Your task to perform on an android device: install app "Google Keep" Image 0: 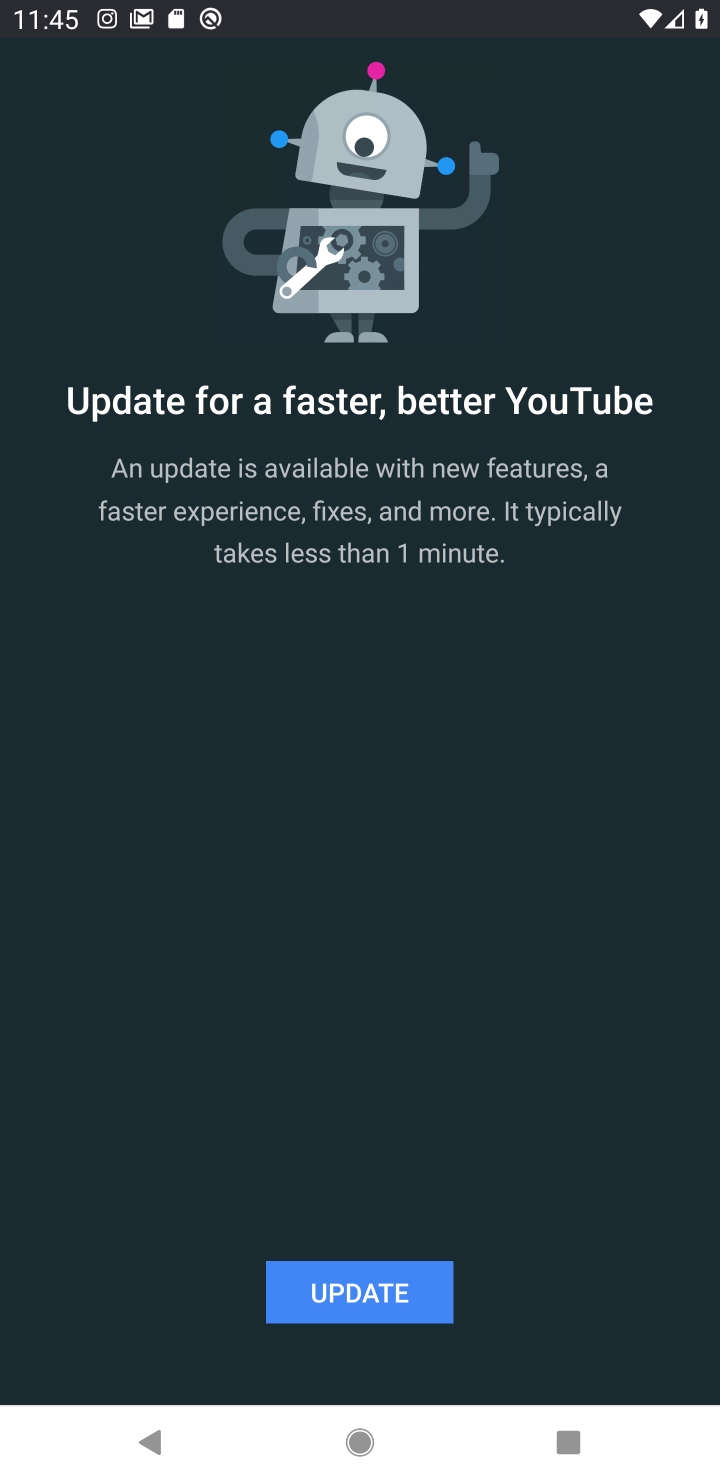
Step 0: press back button
Your task to perform on an android device: install app "Google Keep" Image 1: 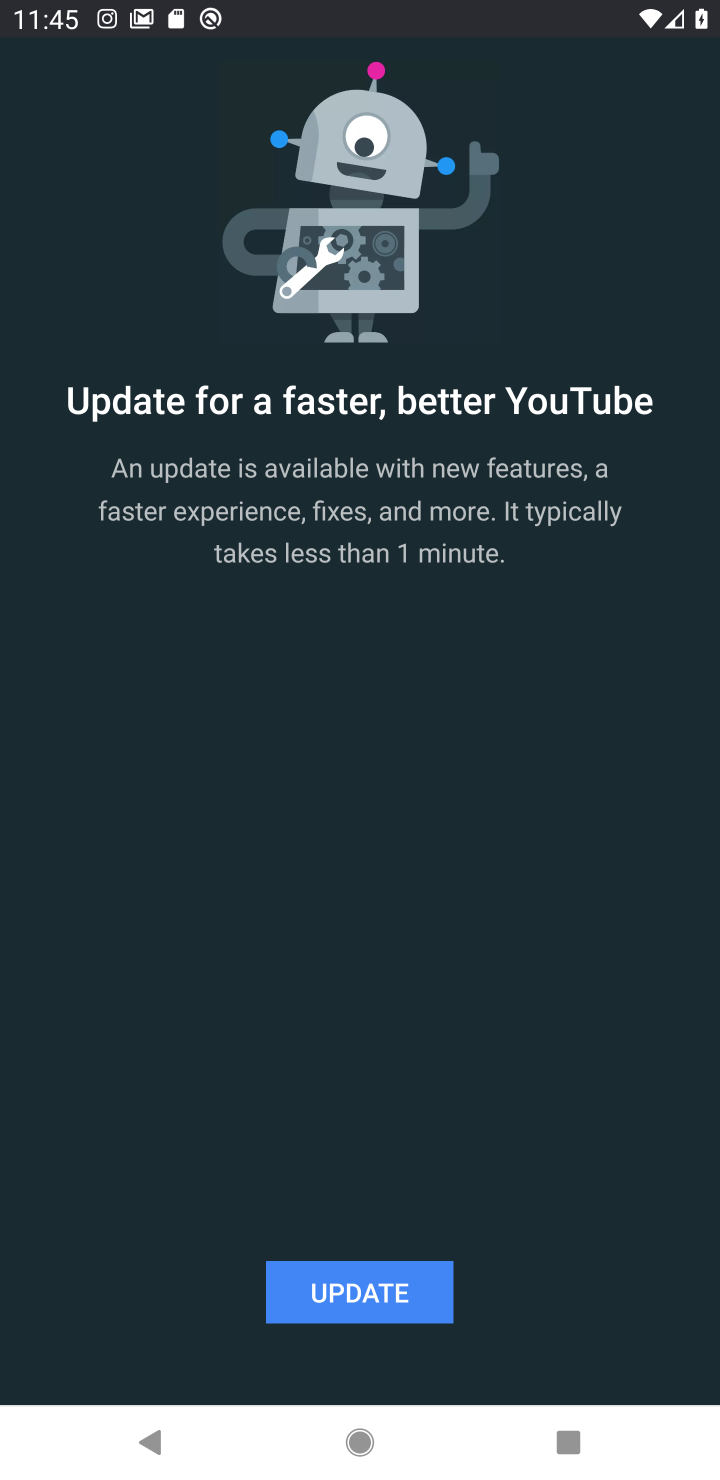
Step 1: press back button
Your task to perform on an android device: install app "Google Keep" Image 2: 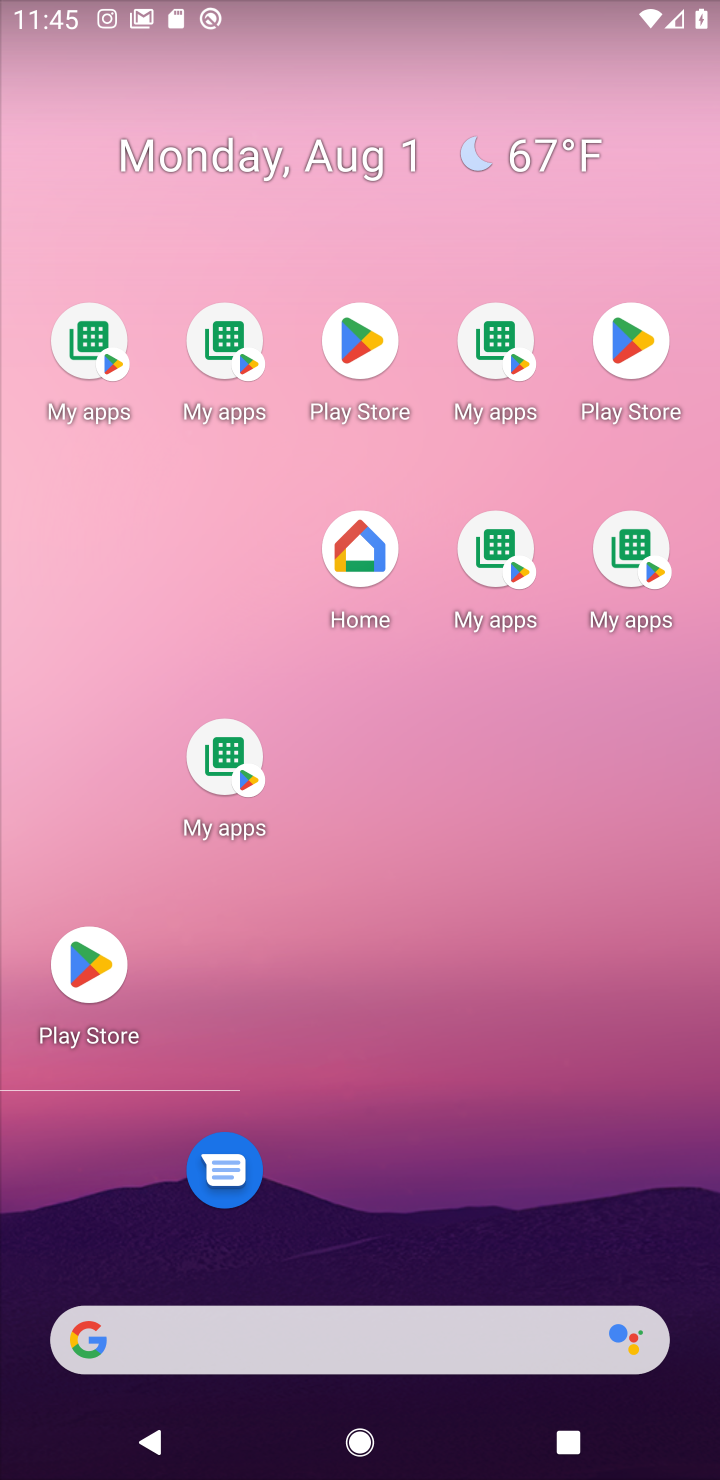
Step 2: click (208, 144)
Your task to perform on an android device: install app "Google Keep" Image 3: 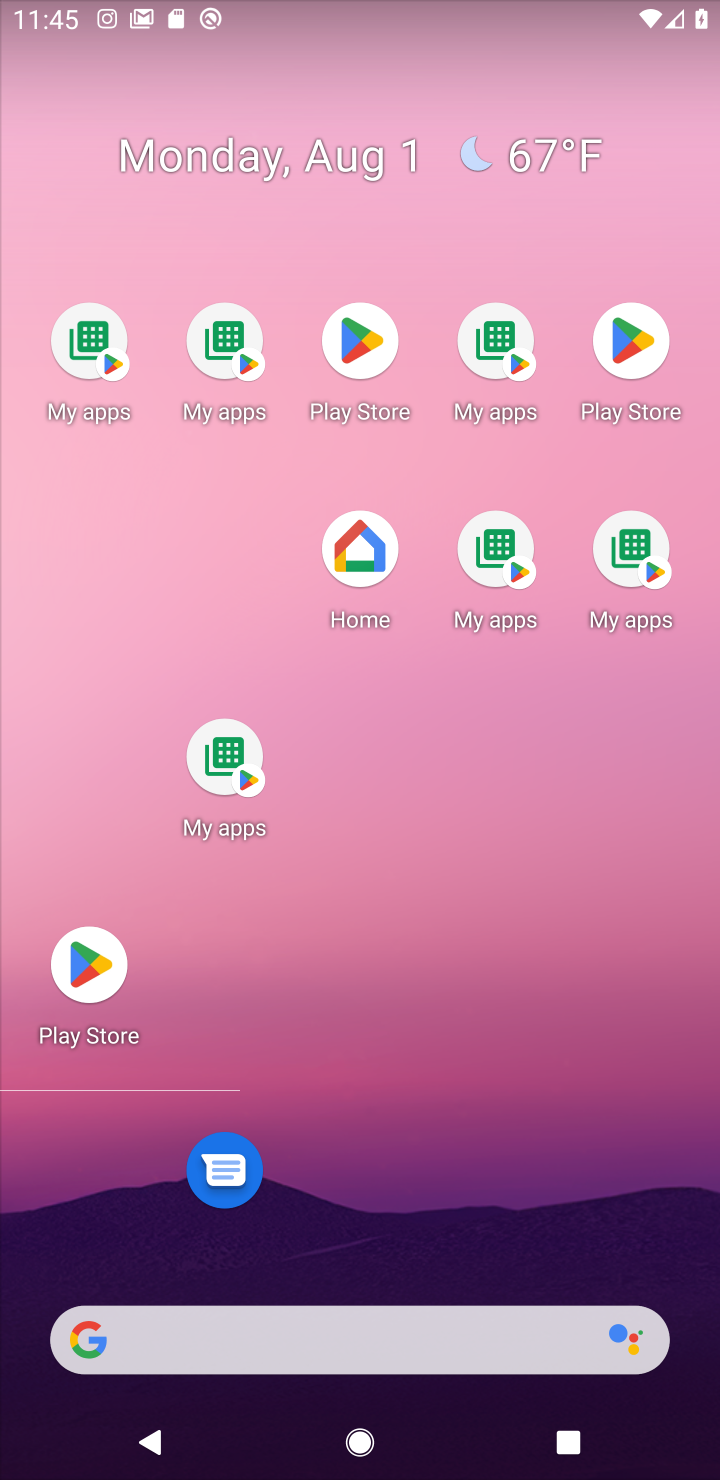
Step 3: drag from (296, 992) to (219, 399)
Your task to perform on an android device: install app "Google Keep" Image 4: 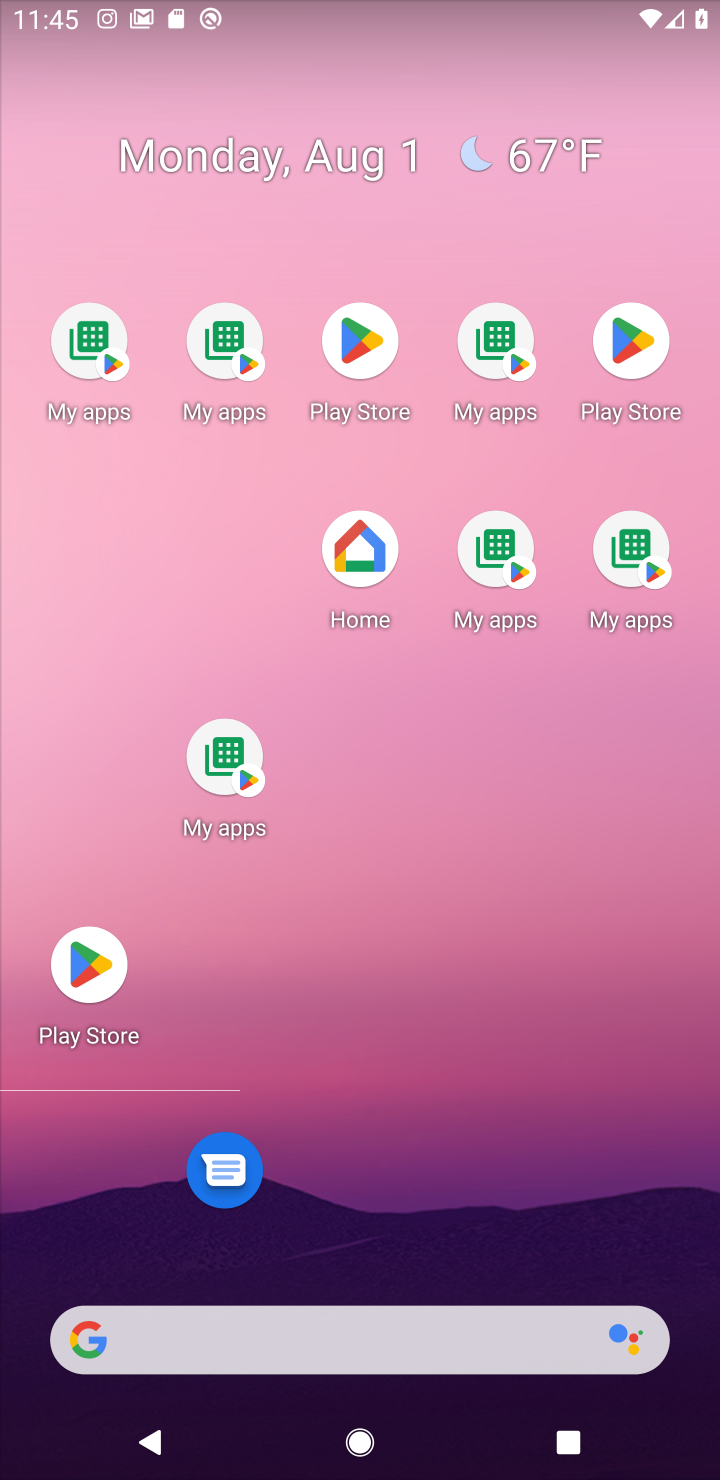
Step 4: drag from (327, 349) to (236, 160)
Your task to perform on an android device: install app "Google Keep" Image 5: 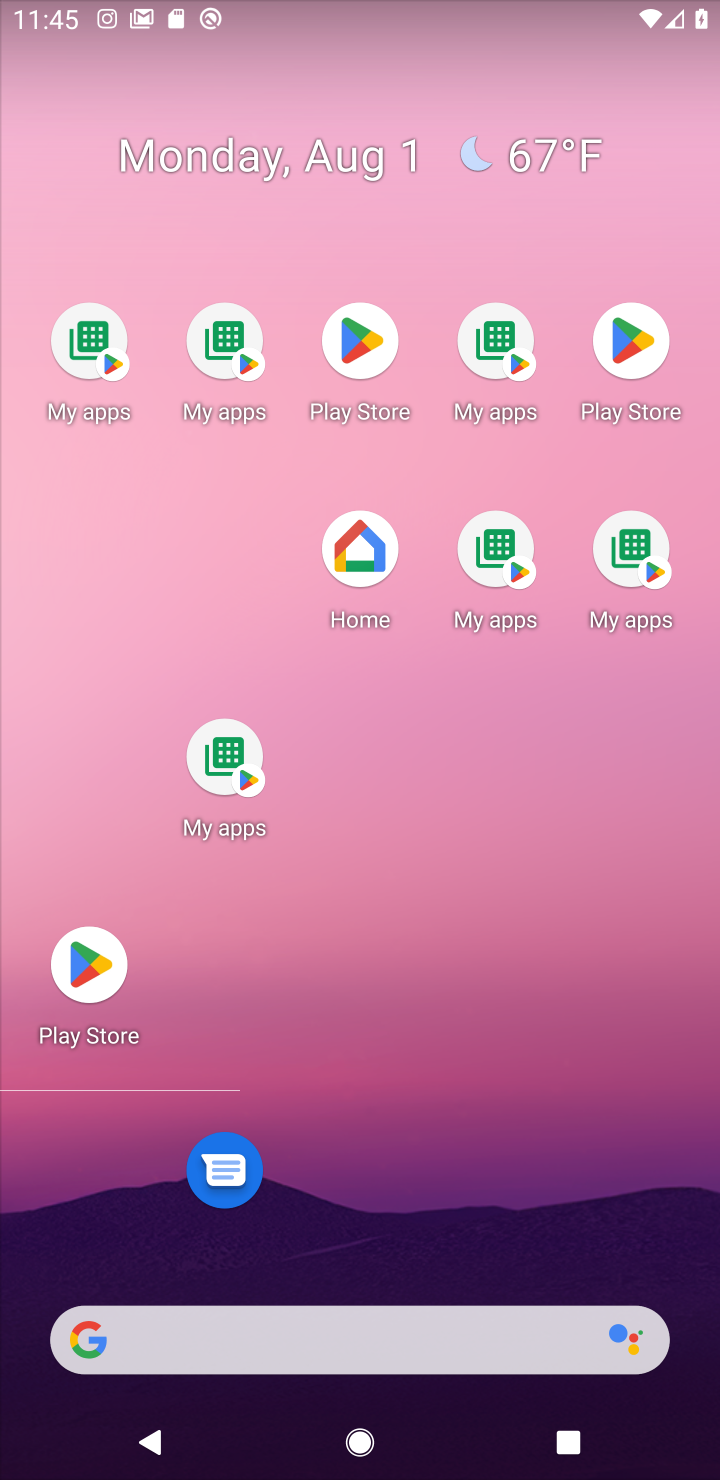
Step 5: click (492, 801)
Your task to perform on an android device: install app "Google Keep" Image 6: 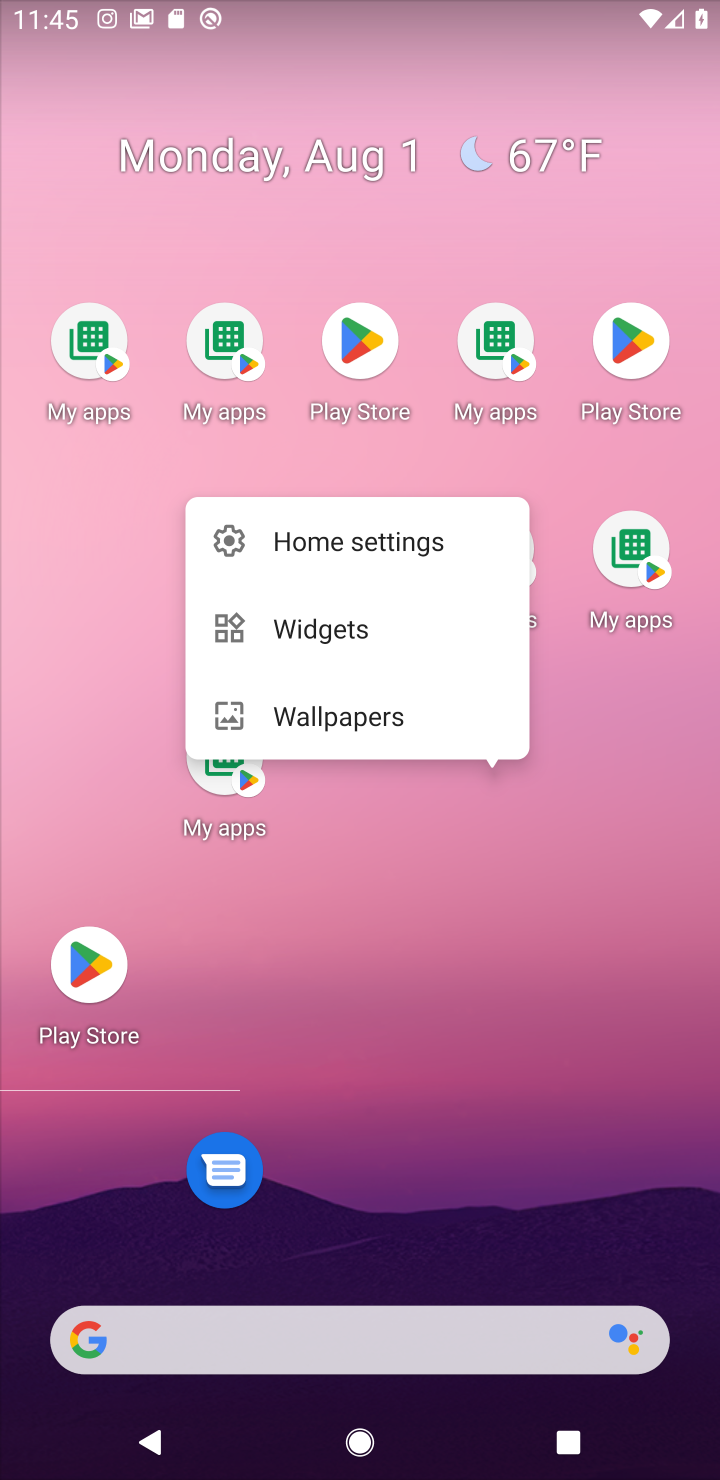
Step 6: click (626, 338)
Your task to perform on an android device: install app "Google Keep" Image 7: 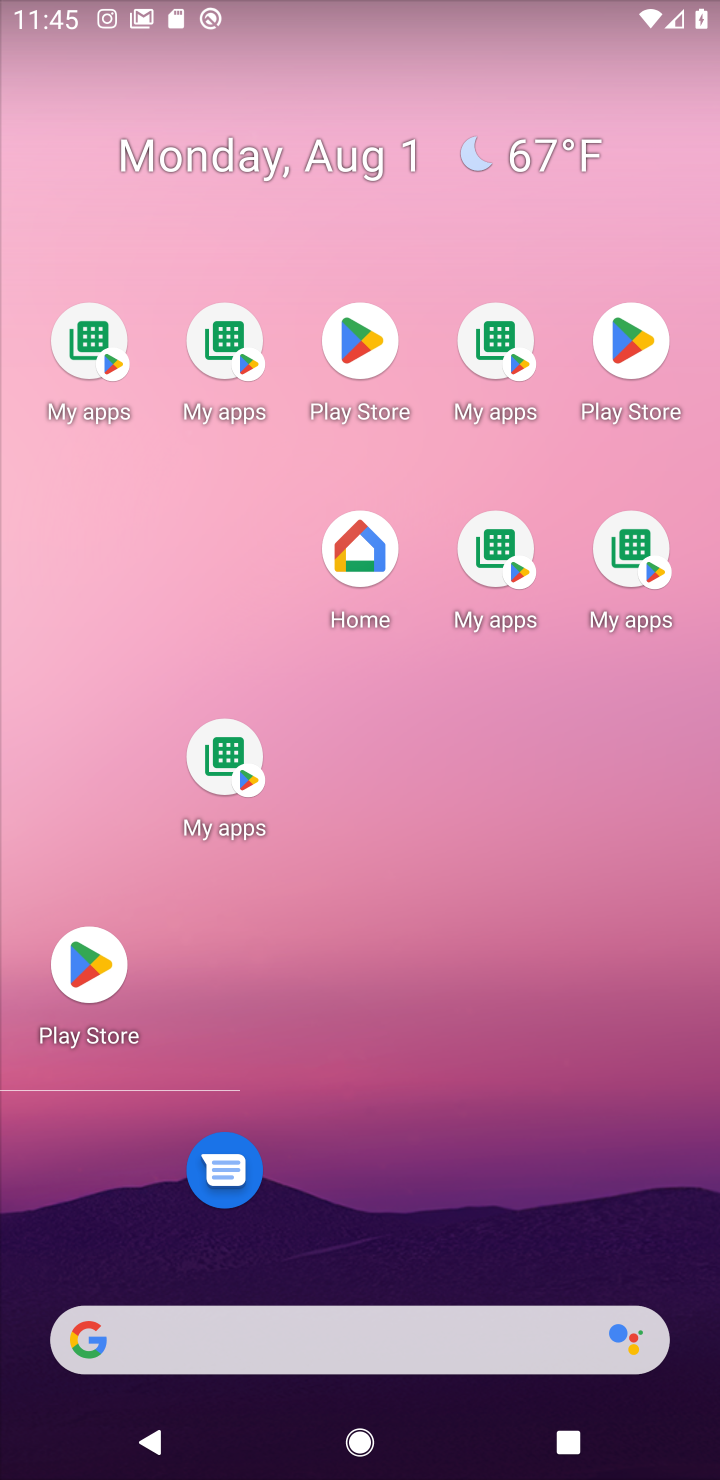
Step 7: click (631, 350)
Your task to perform on an android device: install app "Google Keep" Image 8: 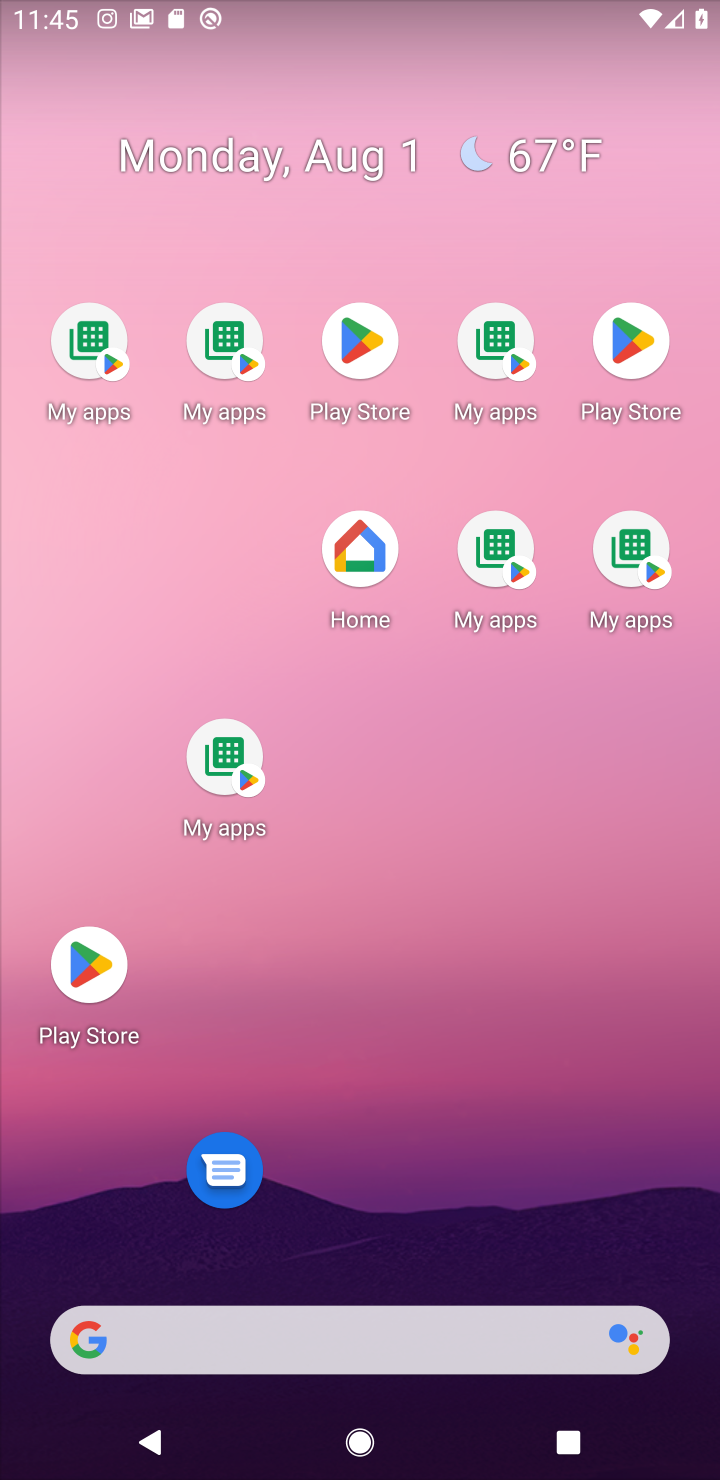
Step 8: click (631, 336)
Your task to perform on an android device: install app "Google Keep" Image 9: 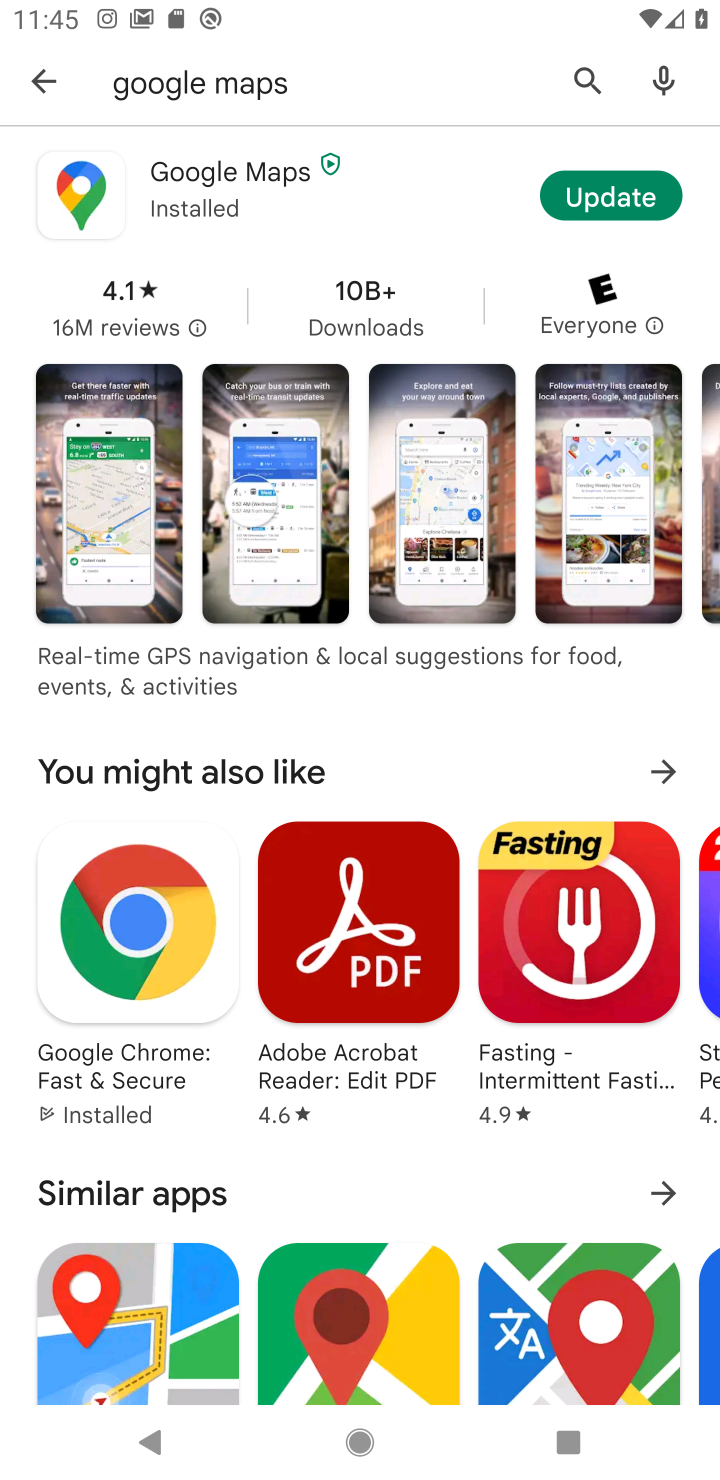
Step 9: click (631, 336)
Your task to perform on an android device: install app "Google Keep" Image 10: 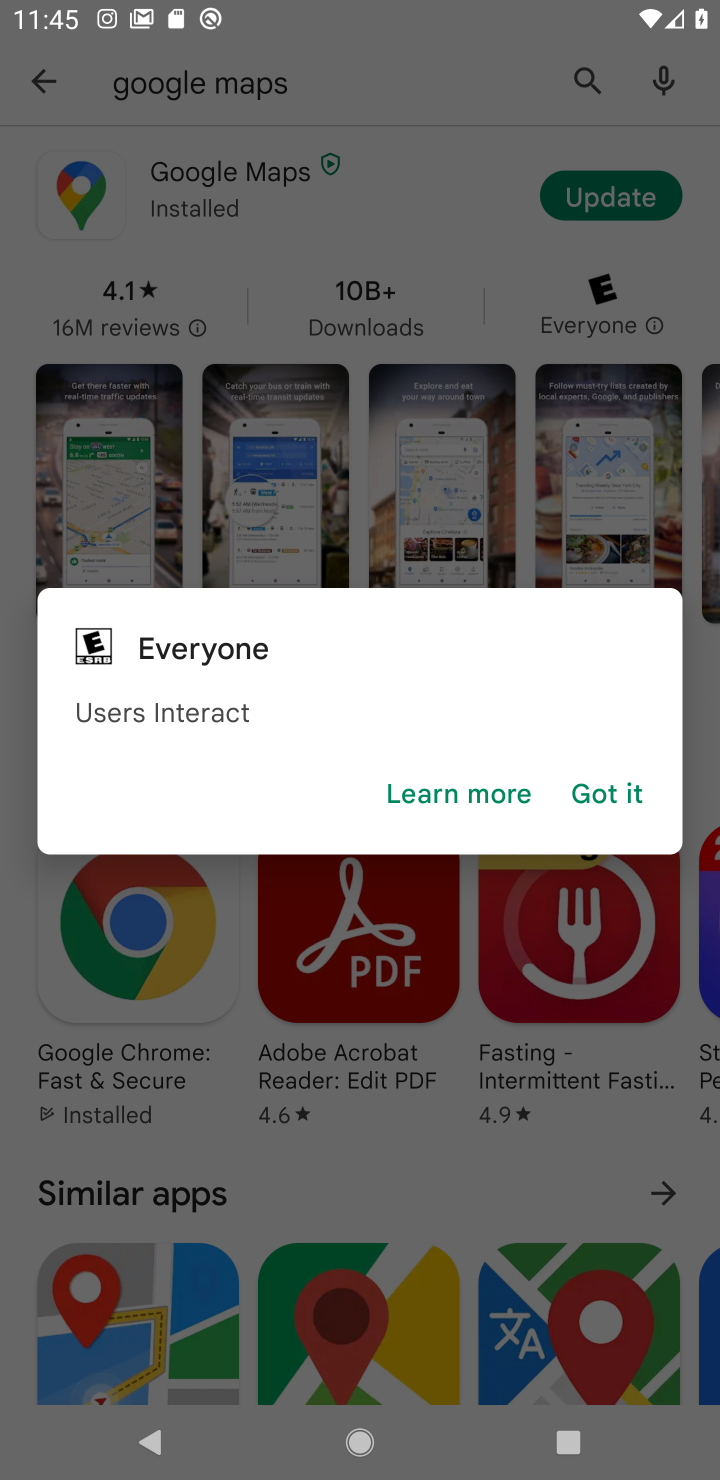
Step 10: click (666, 363)
Your task to perform on an android device: install app "Google Keep" Image 11: 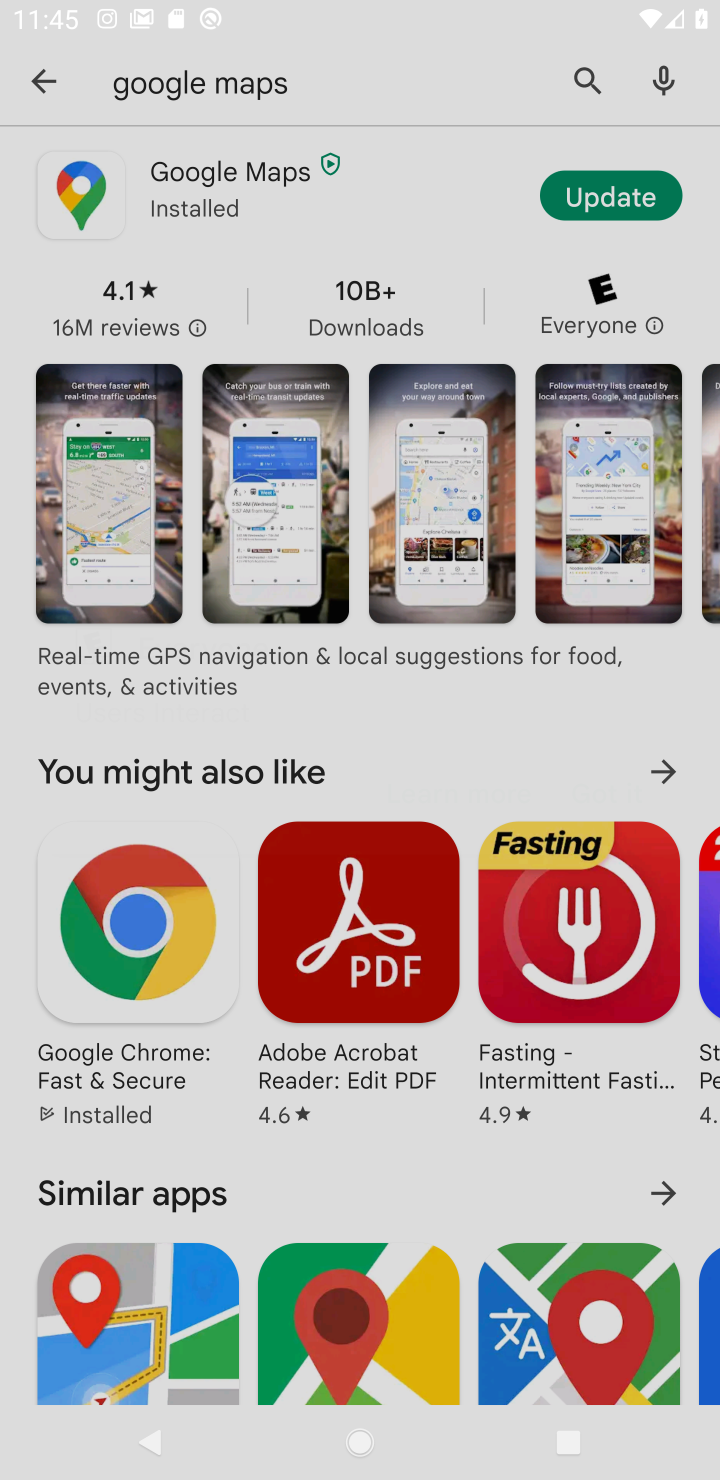
Step 11: click (646, 352)
Your task to perform on an android device: install app "Google Keep" Image 12: 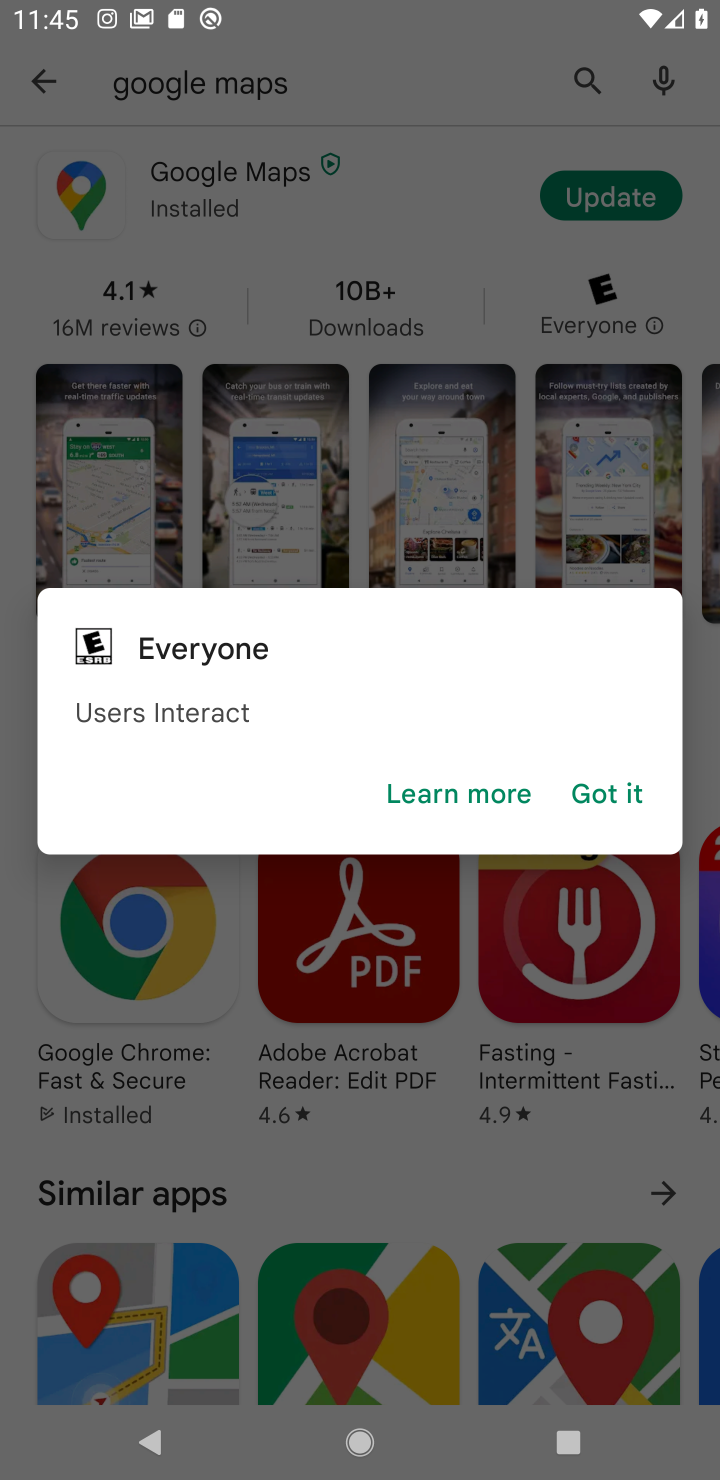
Step 12: click (583, 65)
Your task to perform on an android device: install app "Google Keep" Image 13: 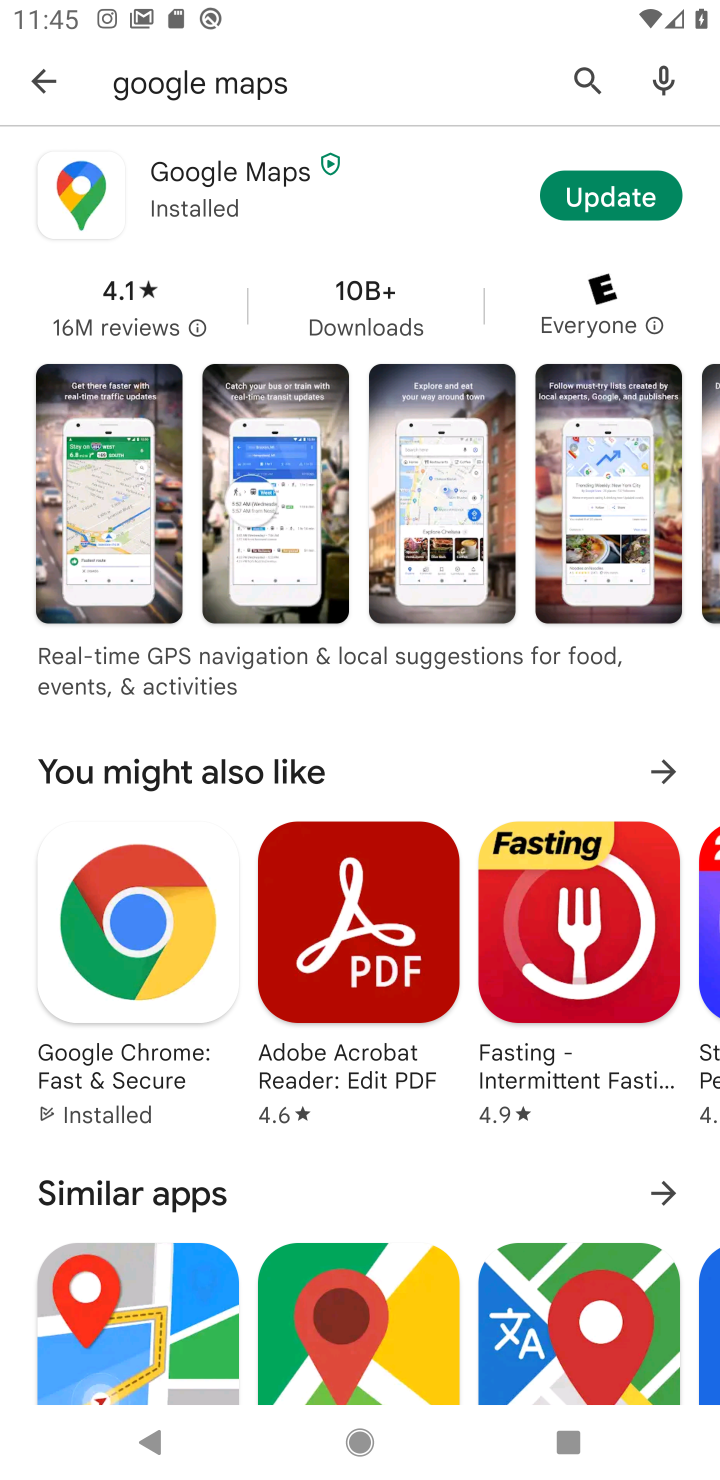
Step 13: click (589, 55)
Your task to perform on an android device: install app "Google Keep" Image 14: 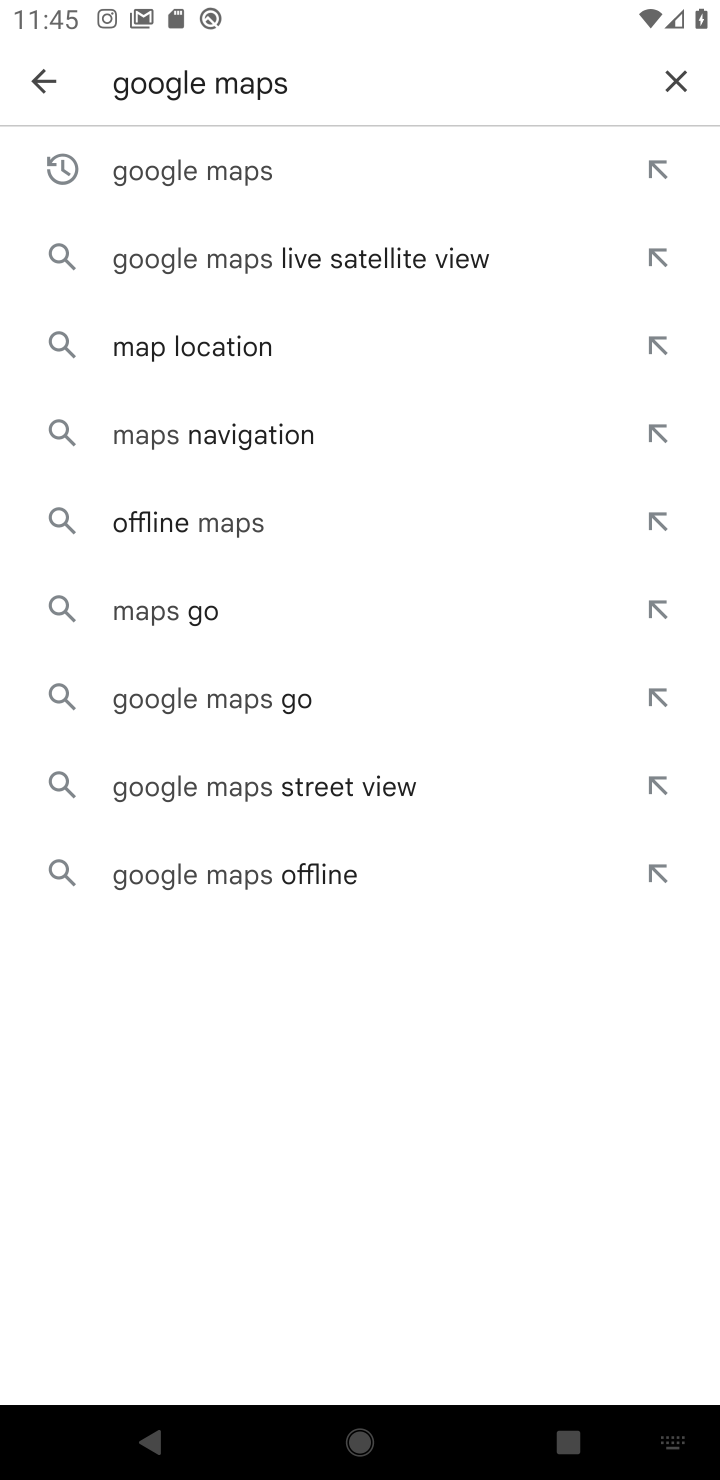
Step 14: click (675, 91)
Your task to perform on an android device: install app "Google Keep" Image 15: 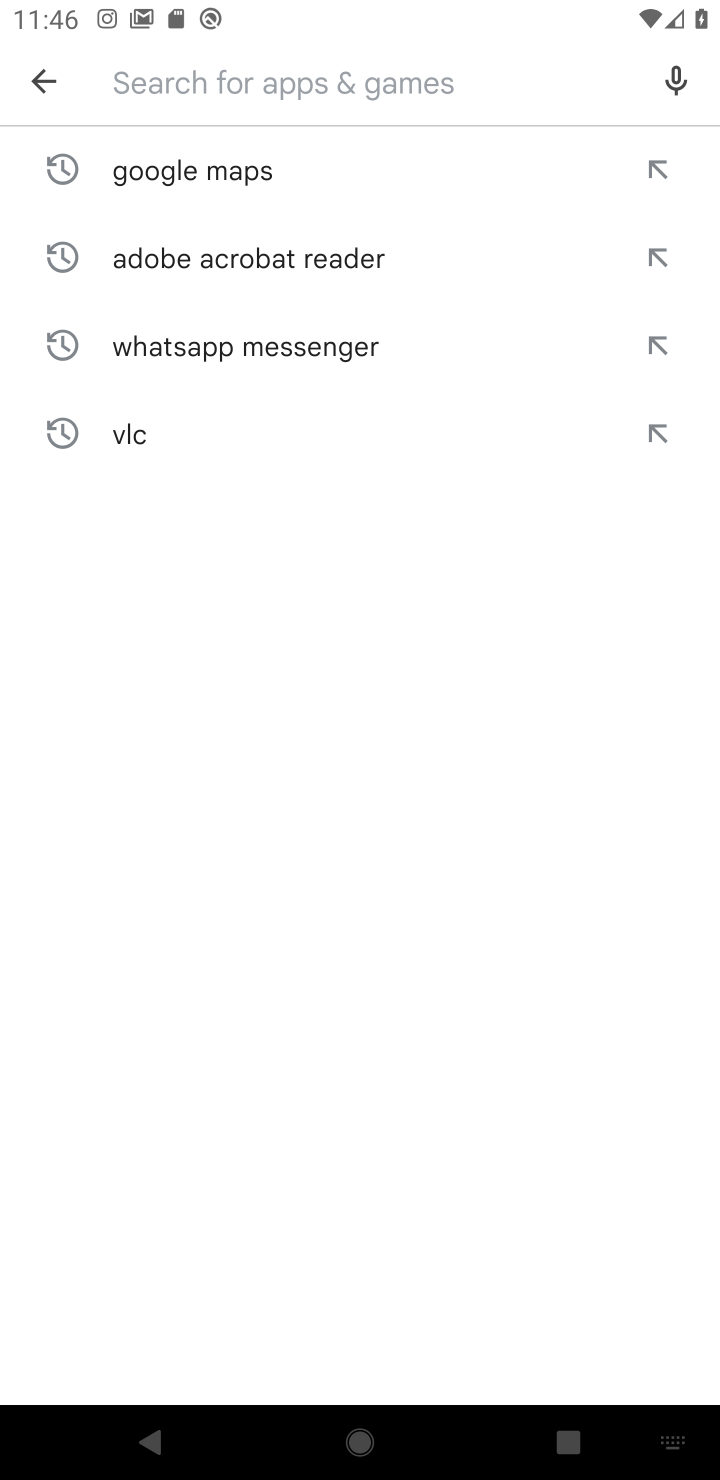
Step 15: type "google keeps"
Your task to perform on an android device: install app "Google Keep" Image 16: 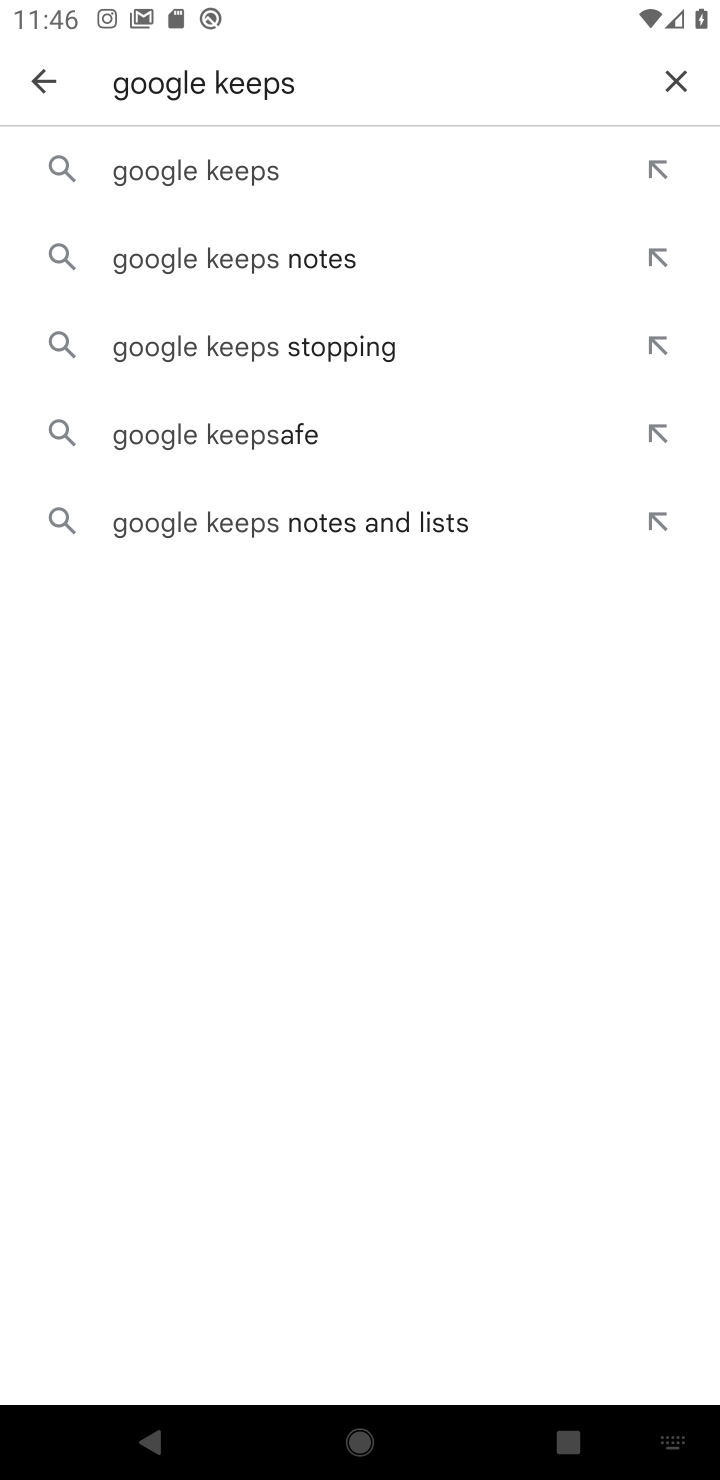
Step 16: click (216, 145)
Your task to perform on an android device: install app "Google Keep" Image 17: 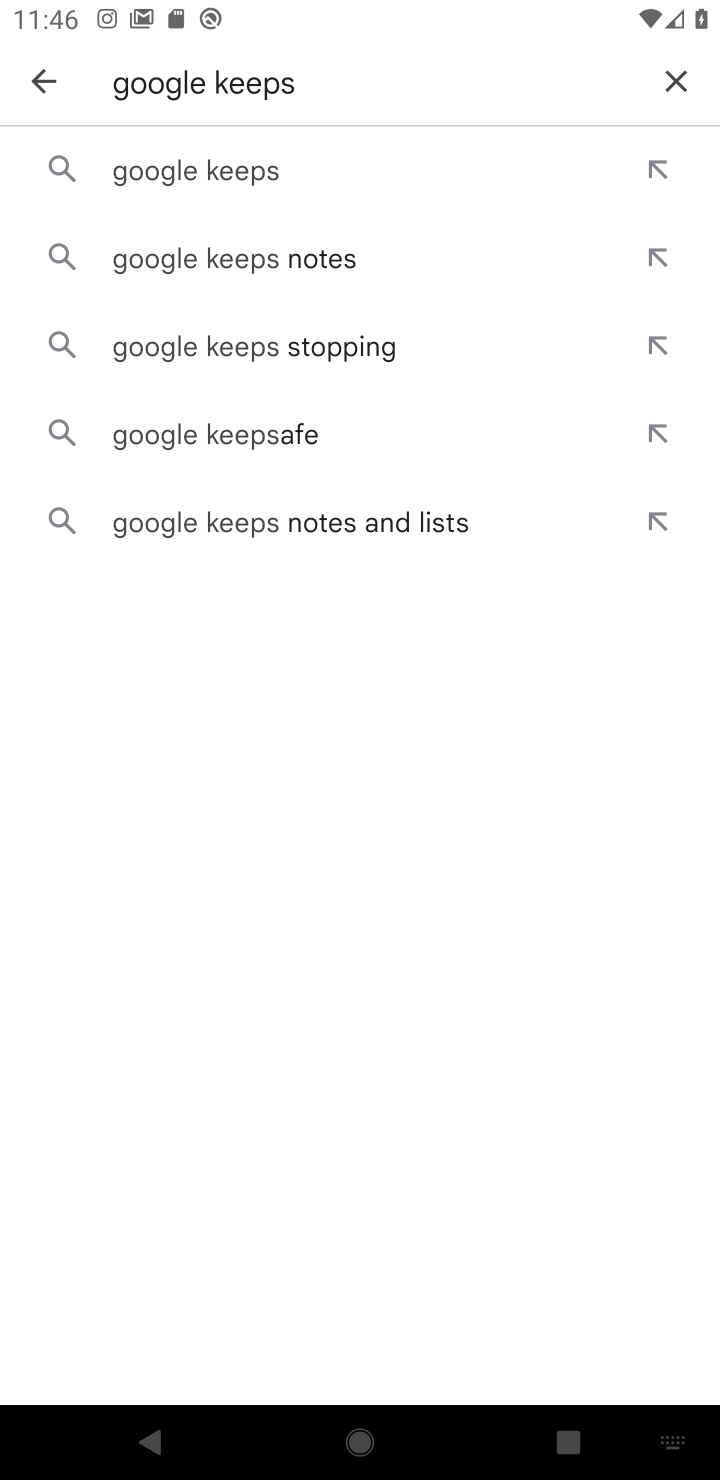
Step 17: click (216, 145)
Your task to perform on an android device: install app "Google Keep" Image 18: 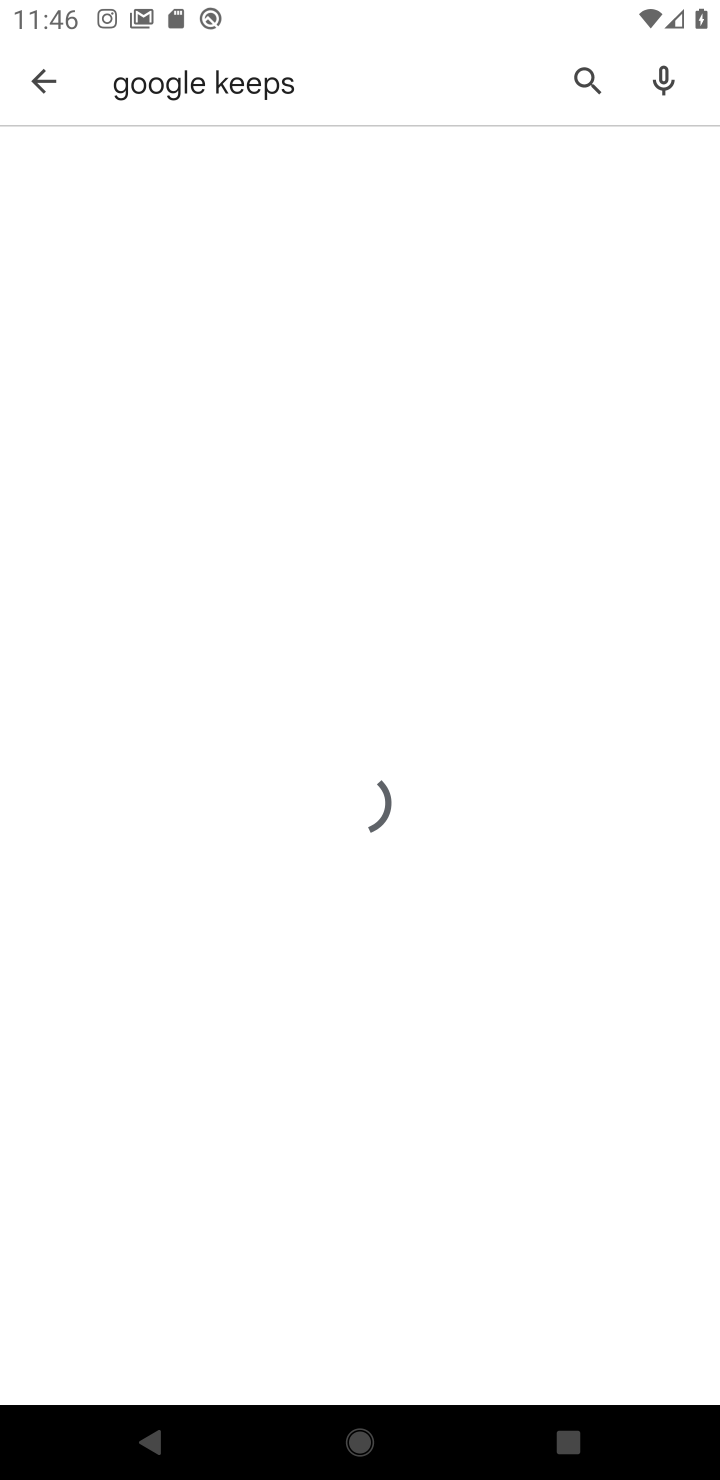
Step 18: click (241, 149)
Your task to perform on an android device: install app "Google Keep" Image 19: 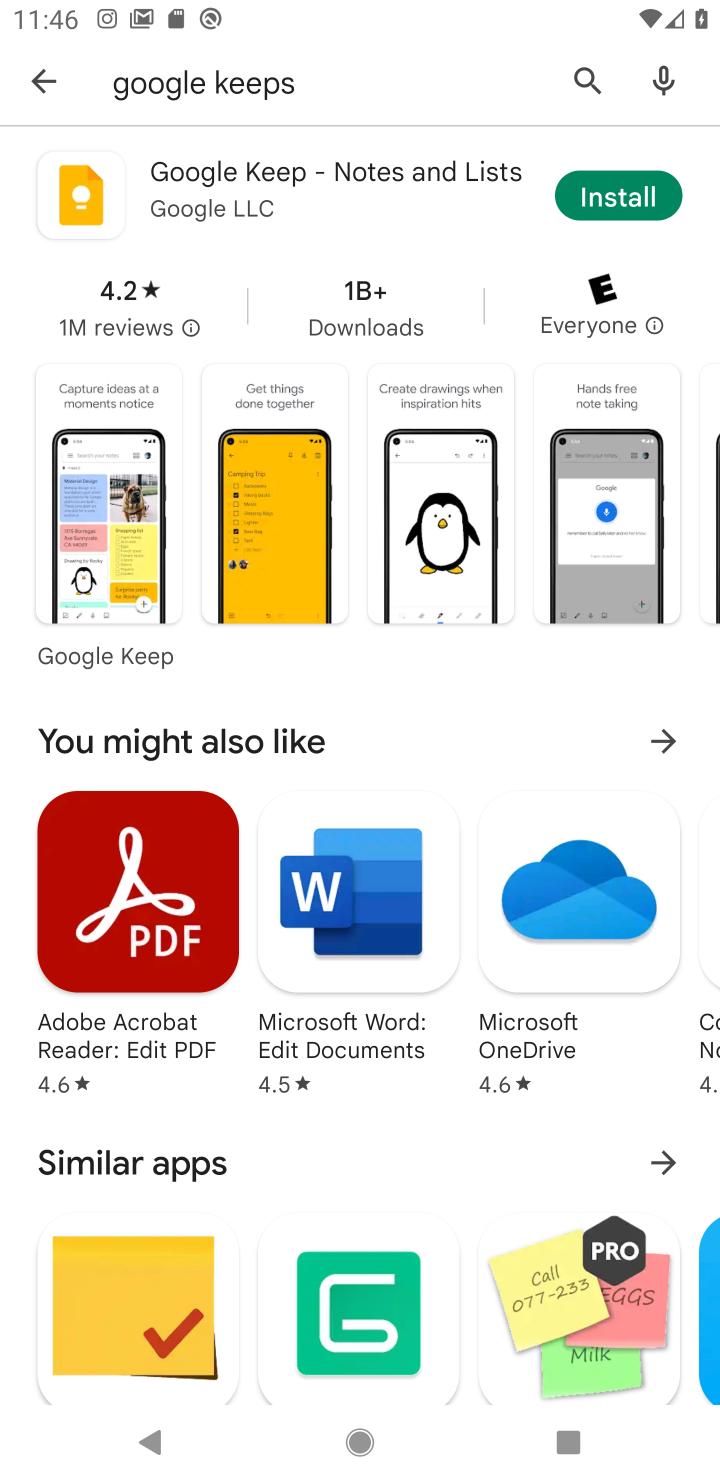
Step 19: click (604, 185)
Your task to perform on an android device: install app "Google Keep" Image 20: 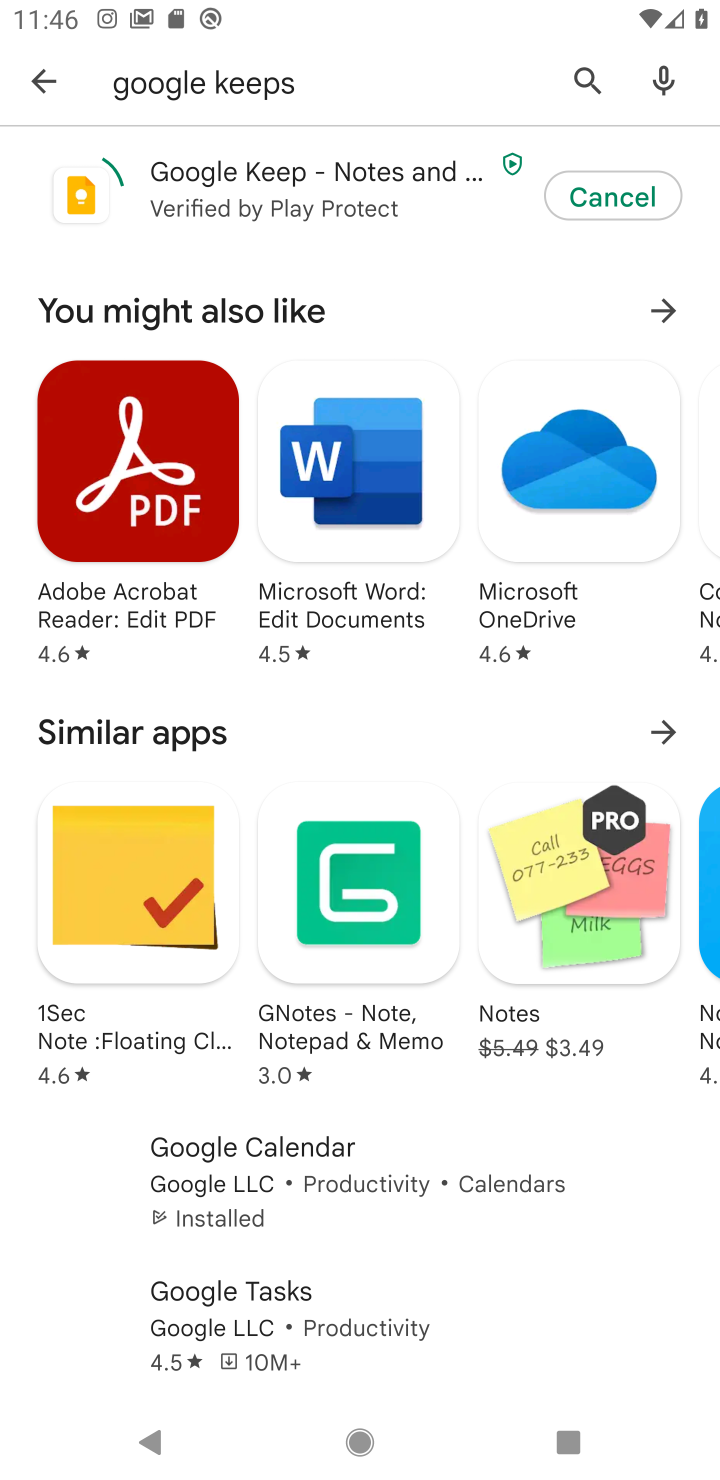
Step 20: click (609, 188)
Your task to perform on an android device: install app "Google Keep" Image 21: 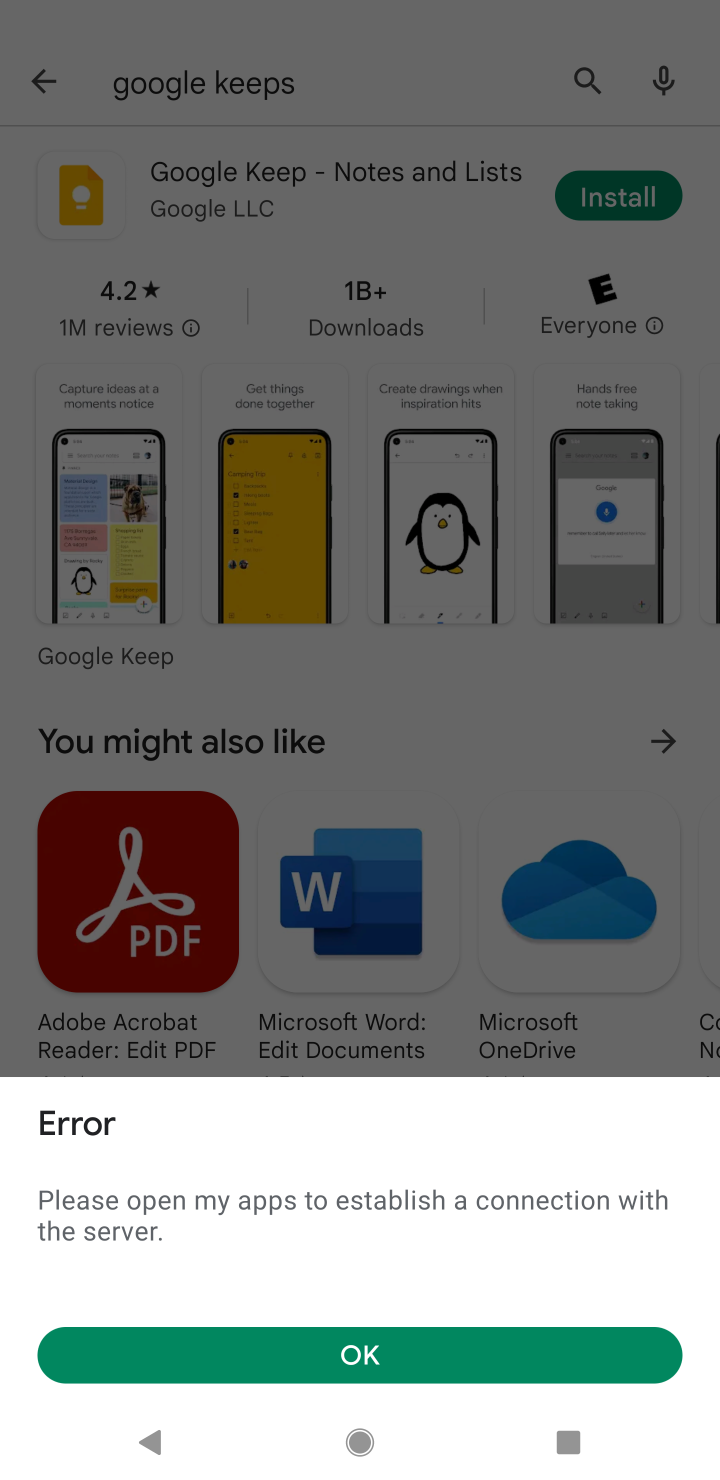
Step 21: click (389, 1340)
Your task to perform on an android device: install app "Google Keep" Image 22: 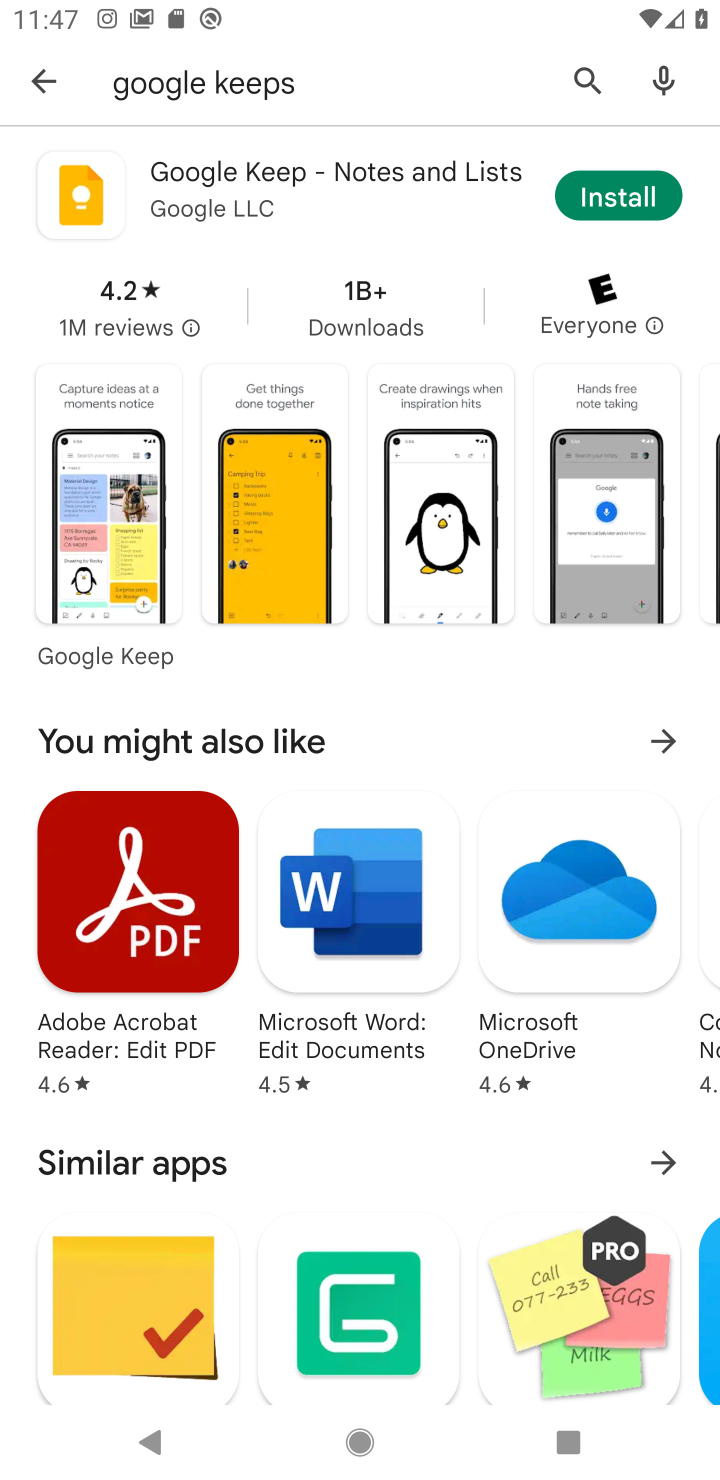
Step 22: click (457, 1313)
Your task to perform on an android device: install app "Google Keep" Image 23: 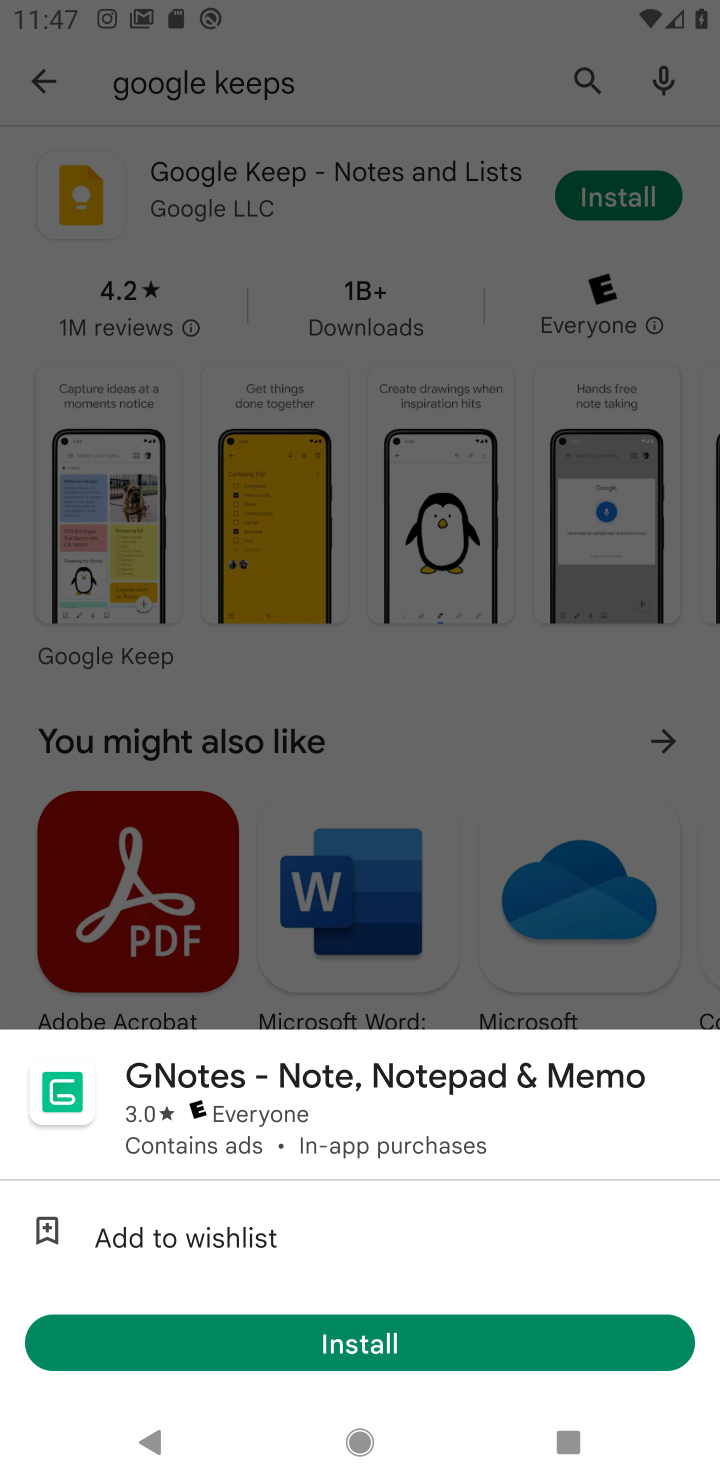
Step 23: click (410, 1355)
Your task to perform on an android device: install app "Google Keep" Image 24: 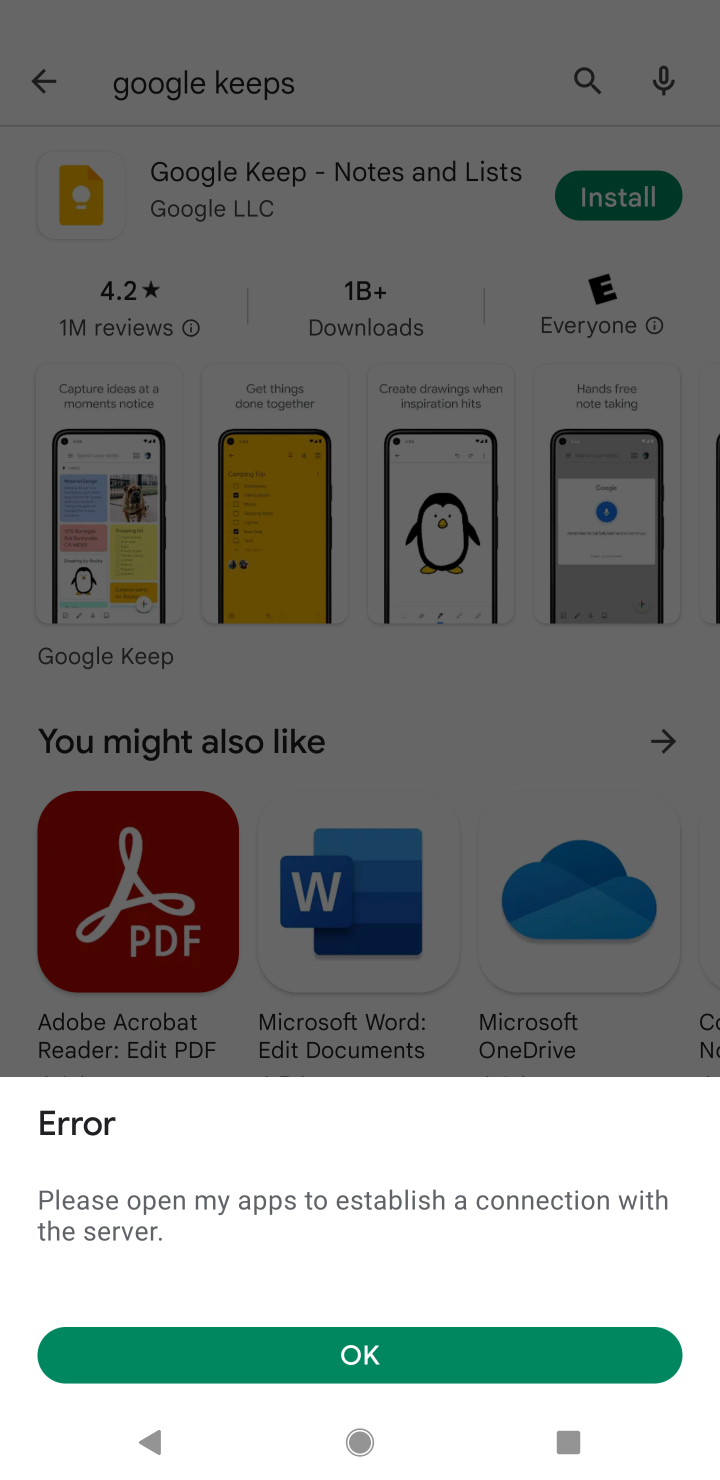
Step 24: click (622, 187)
Your task to perform on an android device: install app "Google Keep" Image 25: 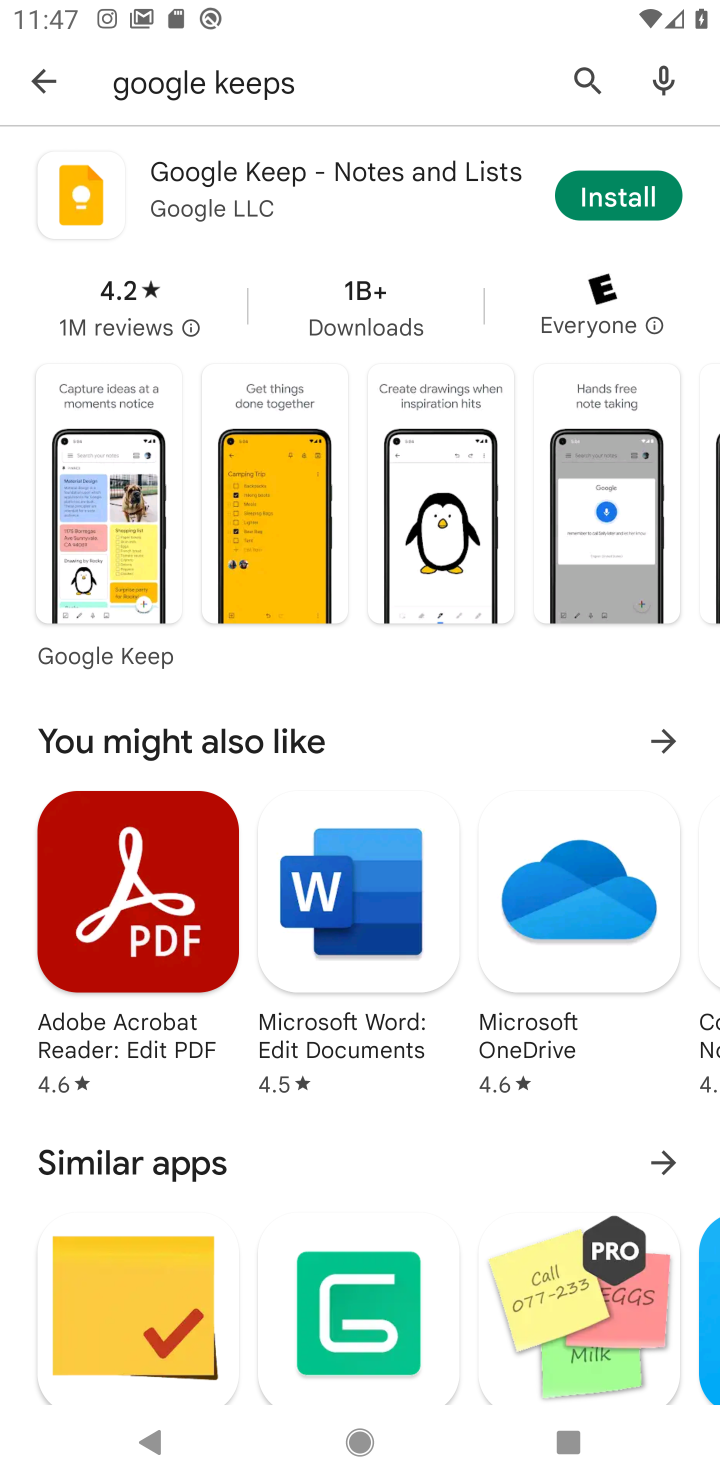
Step 25: click (425, 1349)
Your task to perform on an android device: install app "Google Keep" Image 26: 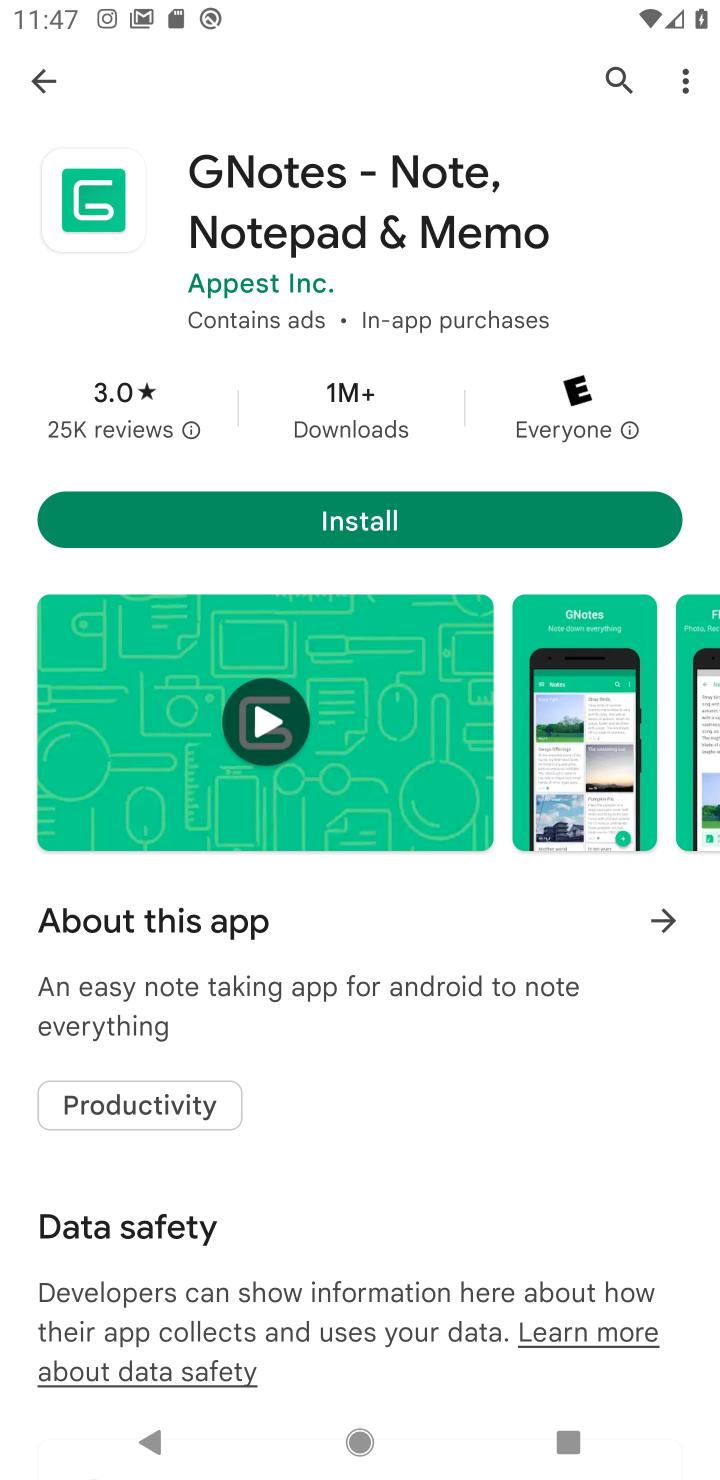
Step 26: task complete